Your task to perform on an android device: open app "Grab" (install if not already installed) and go to login screen Image 0: 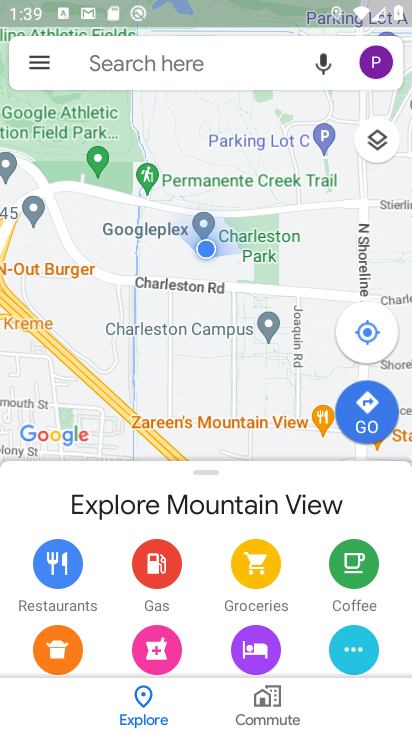
Step 0: click (137, 51)
Your task to perform on an android device: open app "Grab" (install if not already installed) and go to login screen Image 1: 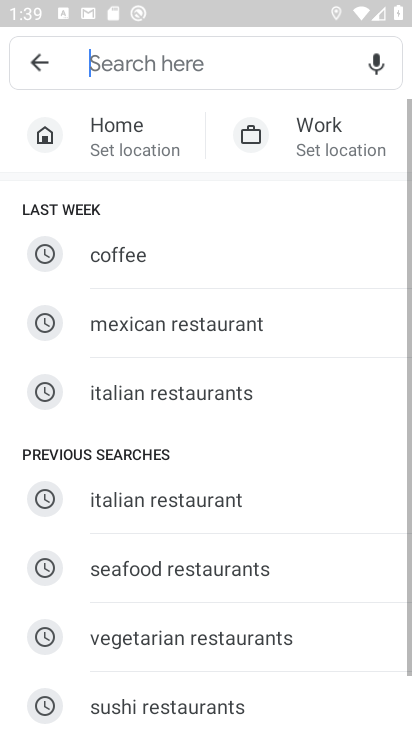
Step 1: press home button
Your task to perform on an android device: open app "Grab" (install if not already installed) and go to login screen Image 2: 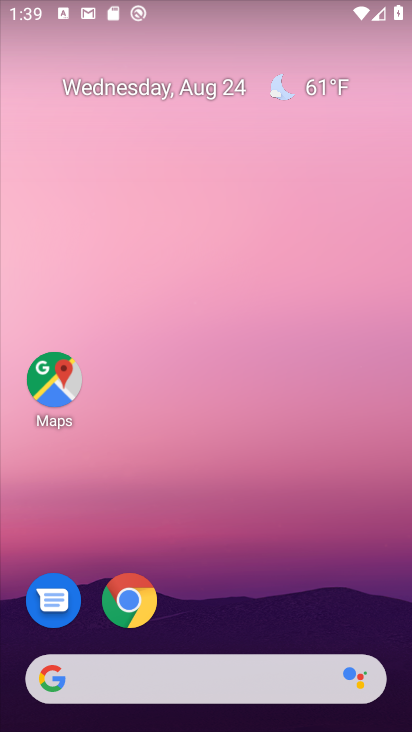
Step 2: drag from (248, 614) to (218, 8)
Your task to perform on an android device: open app "Grab" (install if not already installed) and go to login screen Image 3: 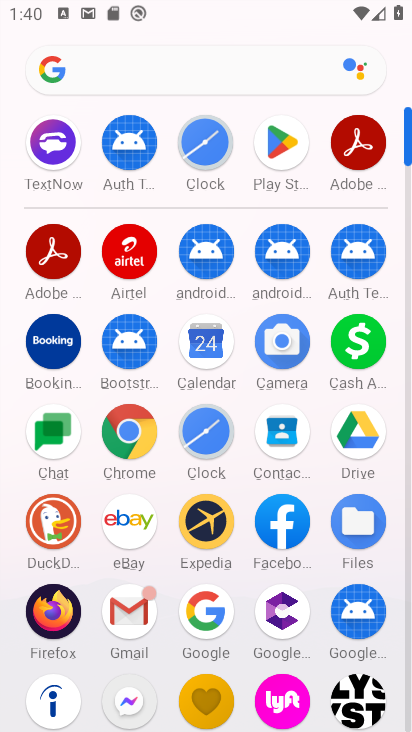
Step 3: click (292, 145)
Your task to perform on an android device: open app "Grab" (install if not already installed) and go to login screen Image 4: 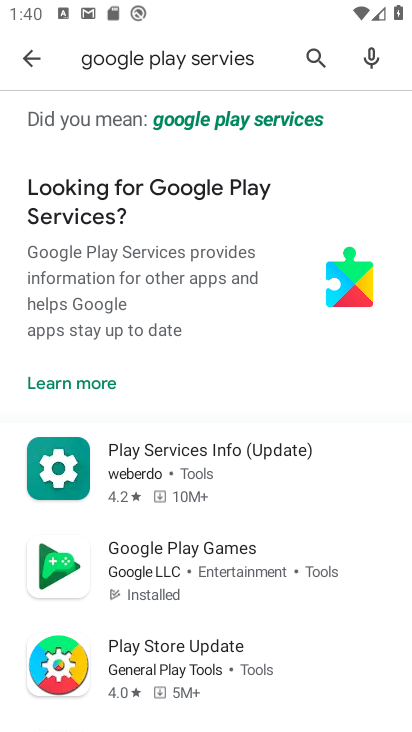
Step 4: click (306, 71)
Your task to perform on an android device: open app "Grab" (install if not already installed) and go to login screen Image 5: 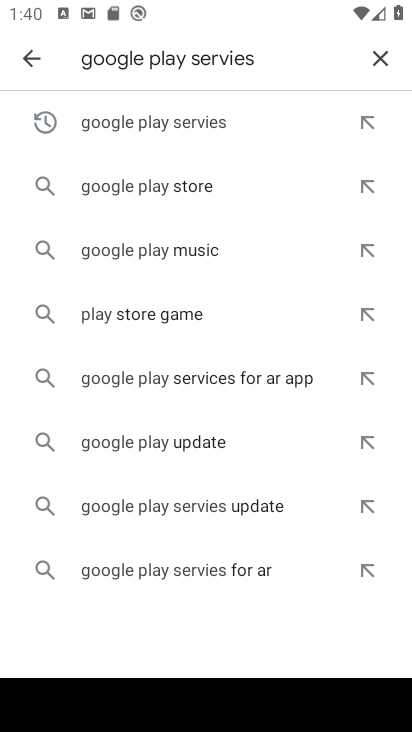
Step 5: click (371, 69)
Your task to perform on an android device: open app "Grab" (install if not already installed) and go to login screen Image 6: 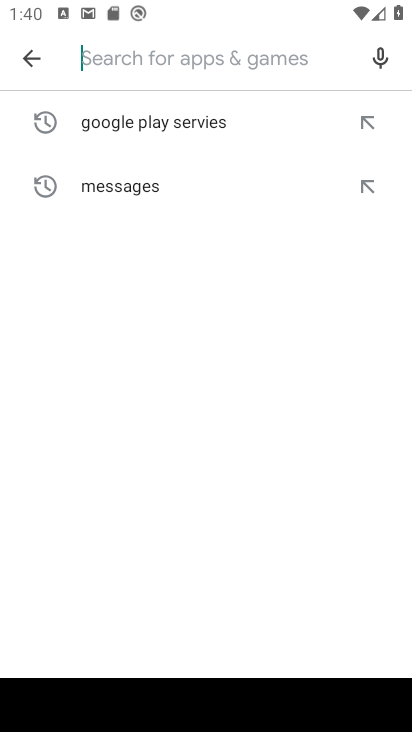
Step 6: type "grab"
Your task to perform on an android device: open app "Grab" (install if not already installed) and go to login screen Image 7: 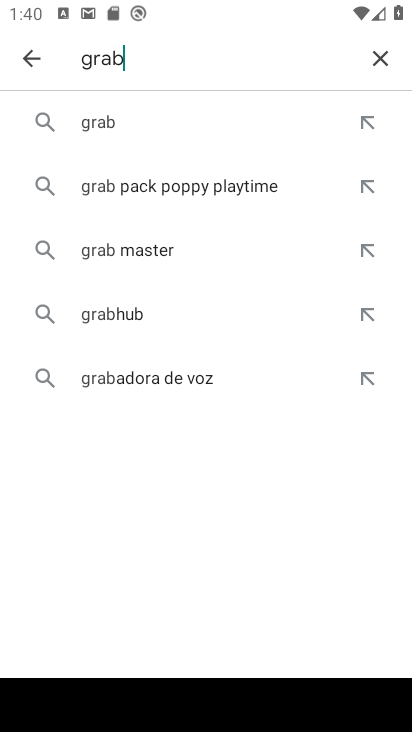
Step 7: click (178, 122)
Your task to perform on an android device: open app "Grab" (install if not already installed) and go to login screen Image 8: 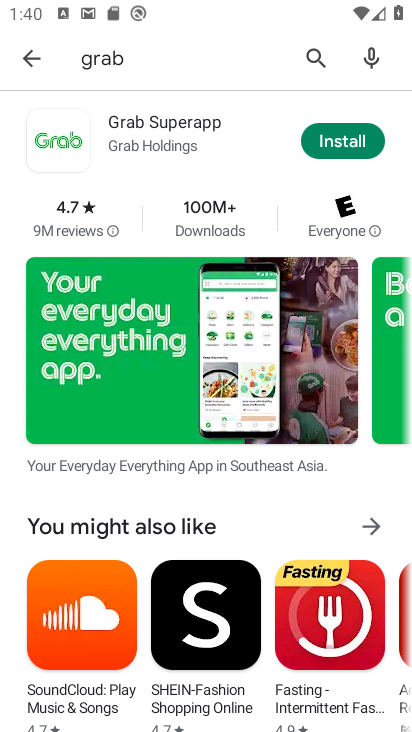
Step 8: click (343, 154)
Your task to perform on an android device: open app "Grab" (install if not already installed) and go to login screen Image 9: 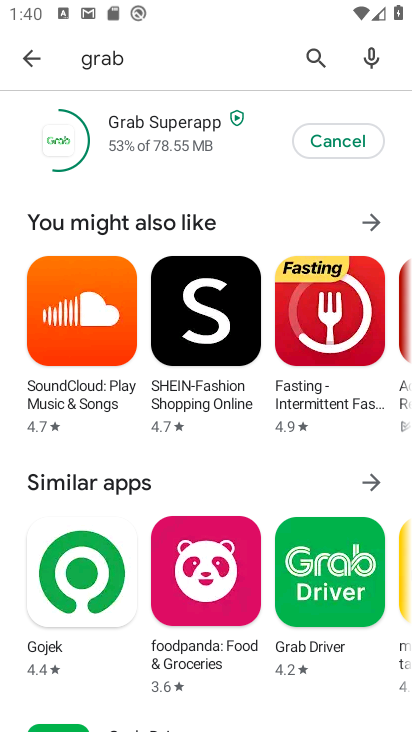
Step 9: task complete